Your task to perform on an android device: Go to Google maps Image 0: 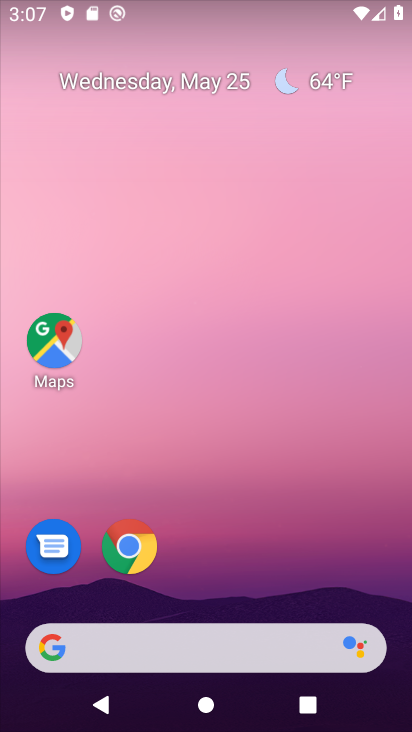
Step 0: click (56, 345)
Your task to perform on an android device: Go to Google maps Image 1: 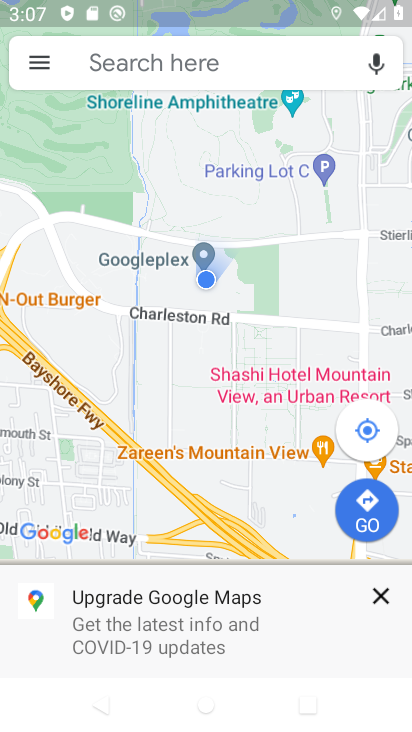
Step 1: task complete